Your task to perform on an android device: Go to CNN.com Image 0: 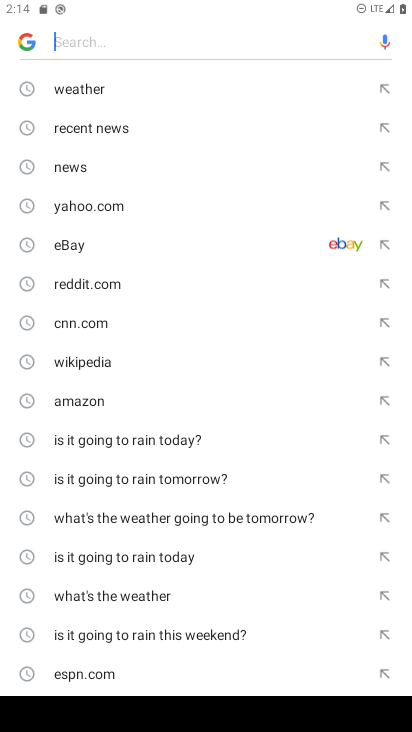
Step 0: click (87, 316)
Your task to perform on an android device: Go to CNN.com Image 1: 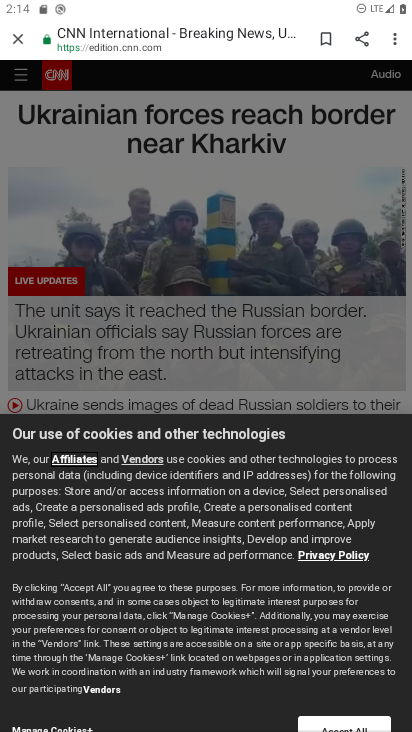
Step 1: task complete